Your task to perform on an android device: clear all cookies in the chrome app Image 0: 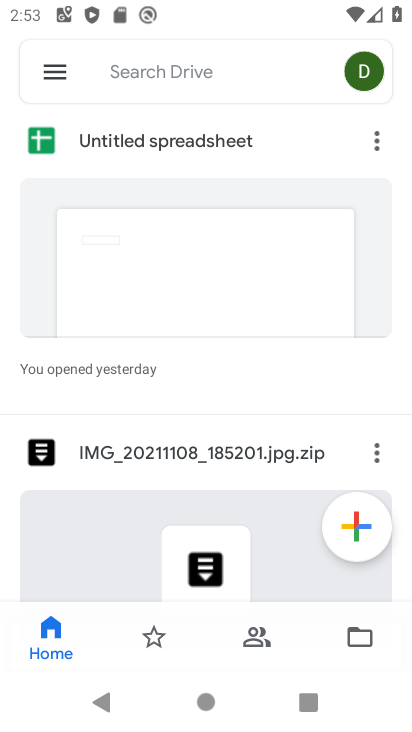
Step 0: press home button
Your task to perform on an android device: clear all cookies in the chrome app Image 1: 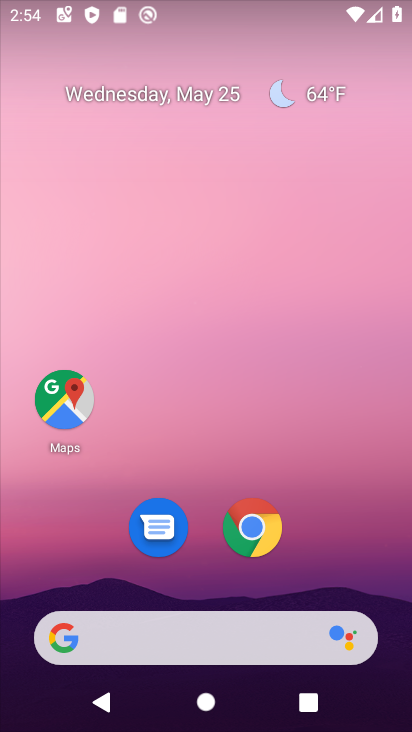
Step 1: click (285, 535)
Your task to perform on an android device: clear all cookies in the chrome app Image 2: 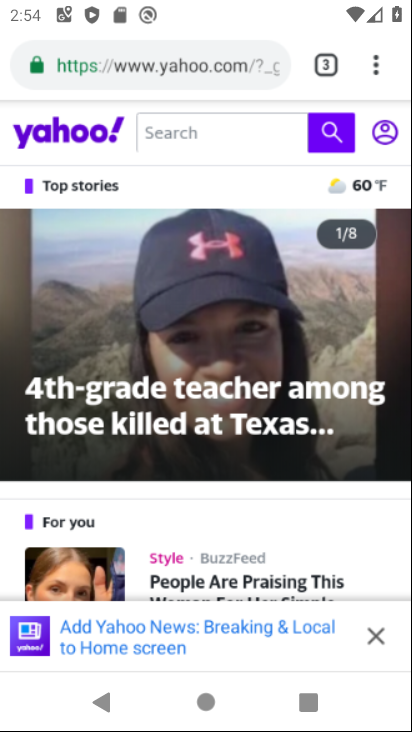
Step 2: drag from (368, 68) to (155, 216)
Your task to perform on an android device: clear all cookies in the chrome app Image 3: 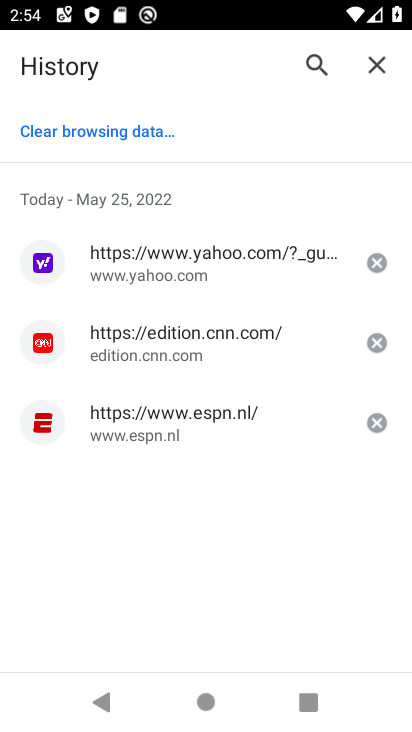
Step 3: click (73, 126)
Your task to perform on an android device: clear all cookies in the chrome app Image 4: 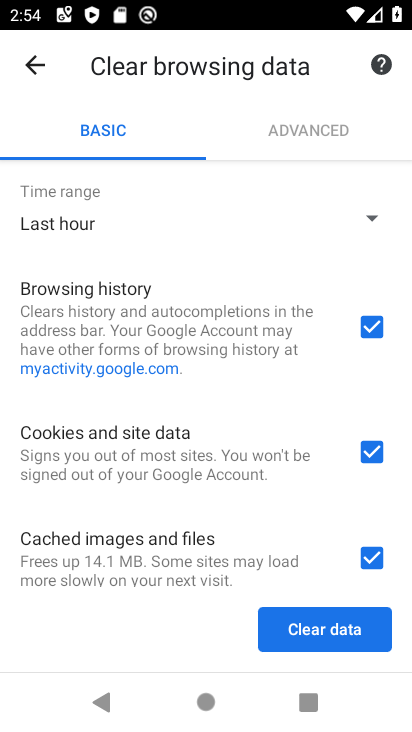
Step 4: click (359, 317)
Your task to perform on an android device: clear all cookies in the chrome app Image 5: 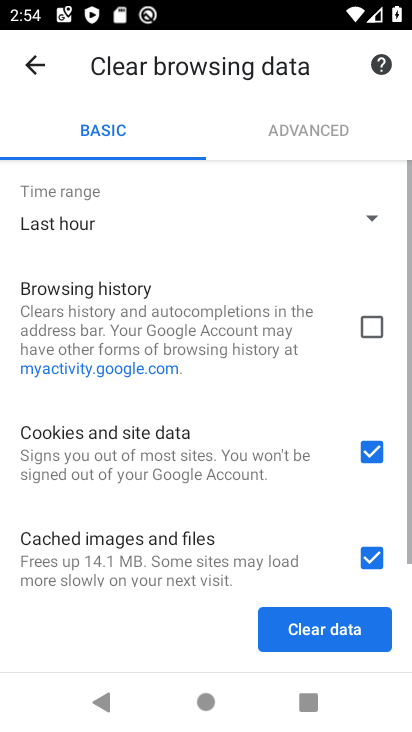
Step 5: click (379, 557)
Your task to perform on an android device: clear all cookies in the chrome app Image 6: 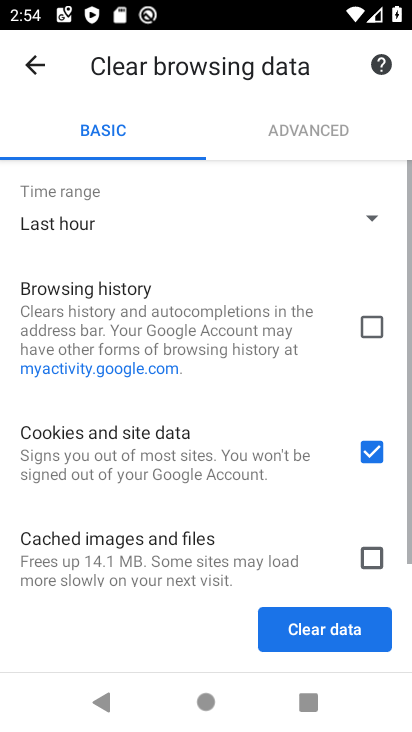
Step 6: click (326, 624)
Your task to perform on an android device: clear all cookies in the chrome app Image 7: 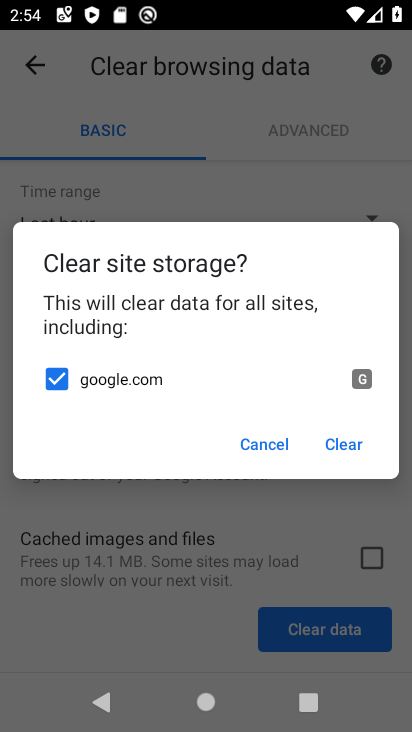
Step 7: click (343, 455)
Your task to perform on an android device: clear all cookies in the chrome app Image 8: 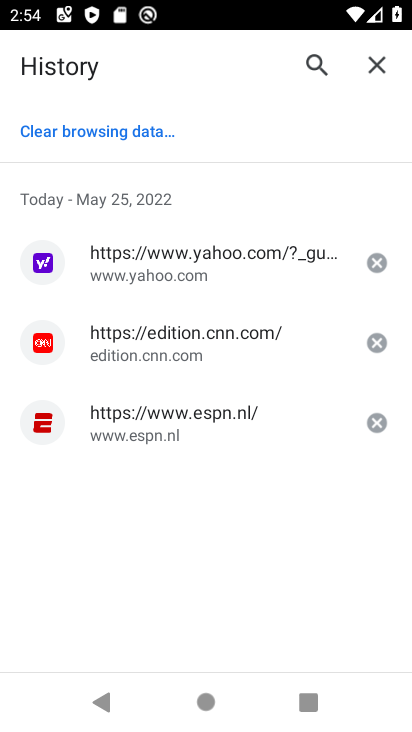
Step 8: task complete